Your task to perform on an android device: set the timer Image 0: 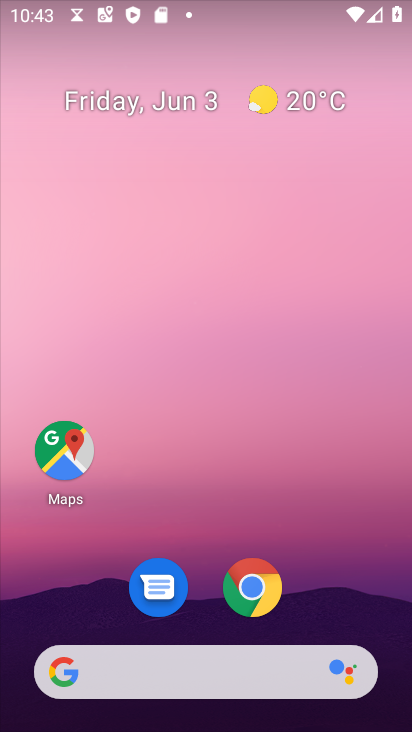
Step 0: drag from (380, 576) to (126, 56)
Your task to perform on an android device: set the timer Image 1: 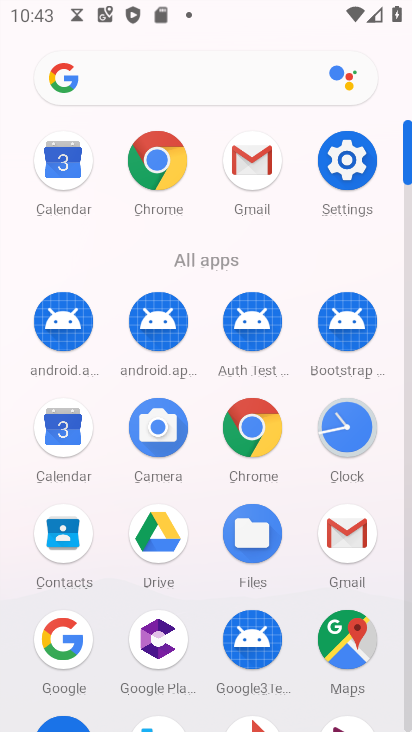
Step 1: click (350, 435)
Your task to perform on an android device: set the timer Image 2: 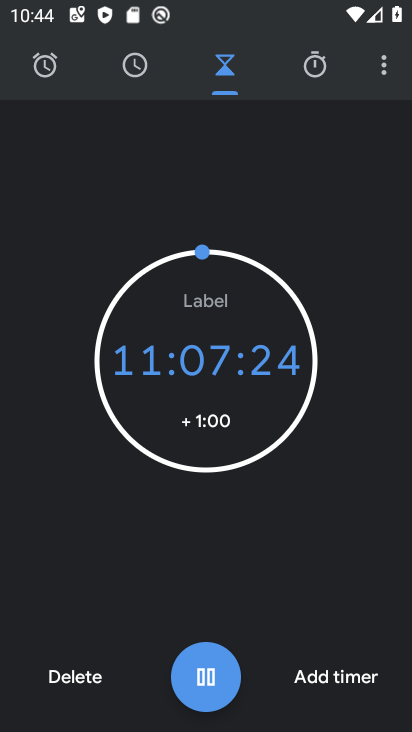
Step 2: click (81, 673)
Your task to perform on an android device: set the timer Image 3: 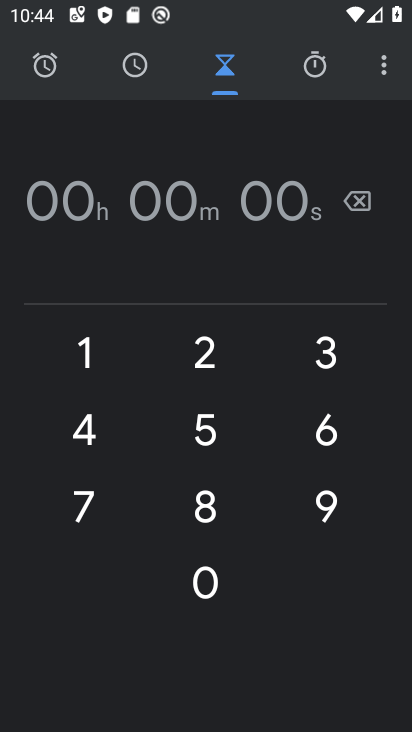
Step 3: click (109, 346)
Your task to perform on an android device: set the timer Image 4: 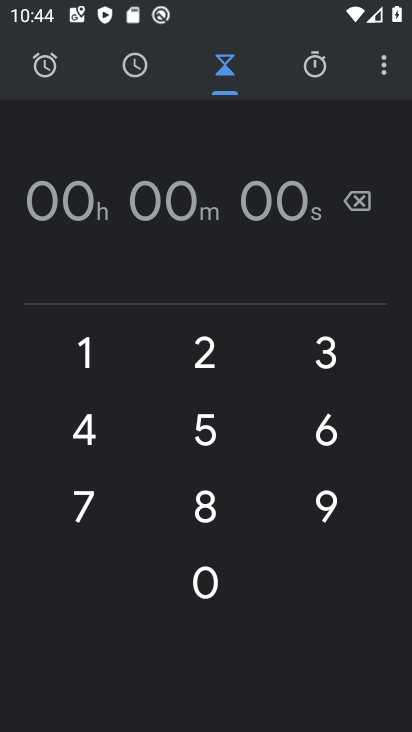
Step 4: click (109, 346)
Your task to perform on an android device: set the timer Image 5: 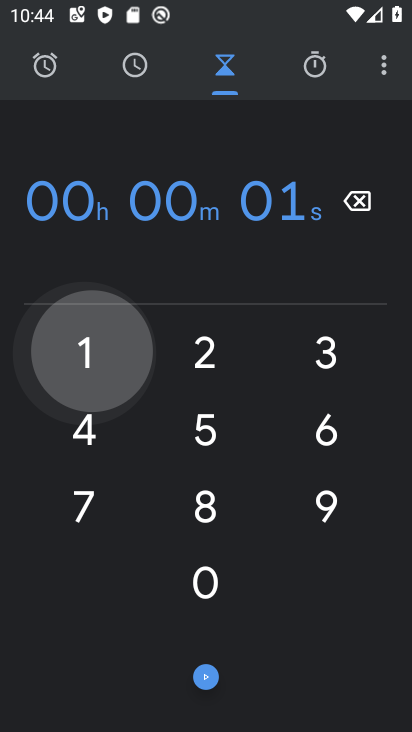
Step 5: click (106, 347)
Your task to perform on an android device: set the timer Image 6: 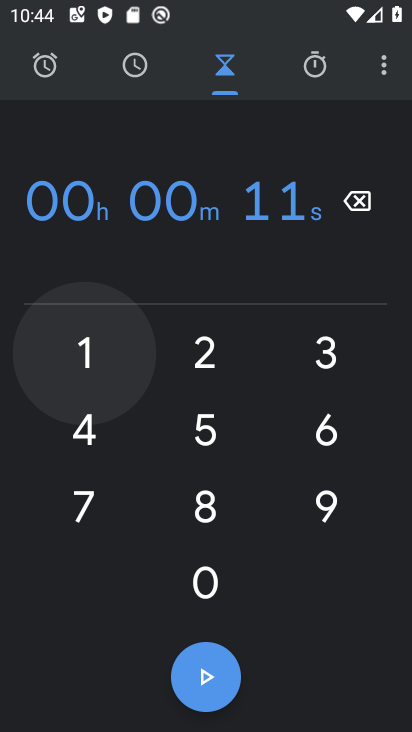
Step 6: click (106, 348)
Your task to perform on an android device: set the timer Image 7: 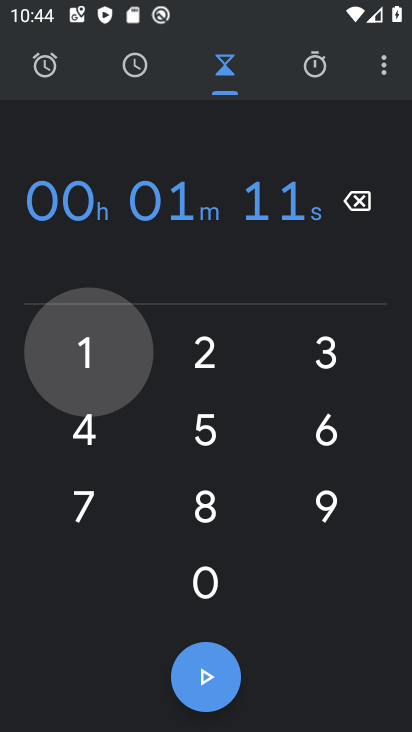
Step 7: click (106, 348)
Your task to perform on an android device: set the timer Image 8: 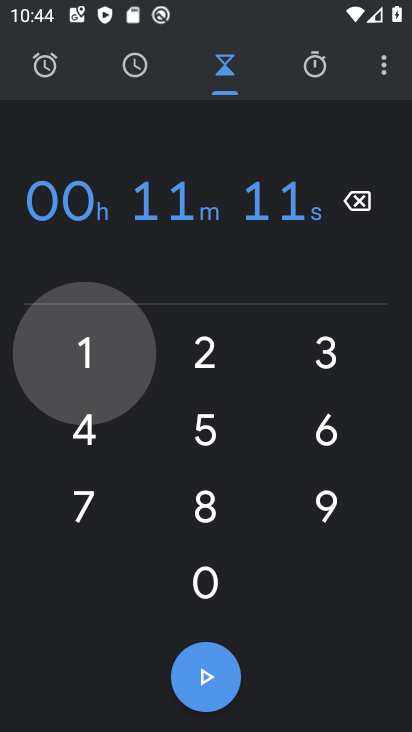
Step 8: click (105, 350)
Your task to perform on an android device: set the timer Image 9: 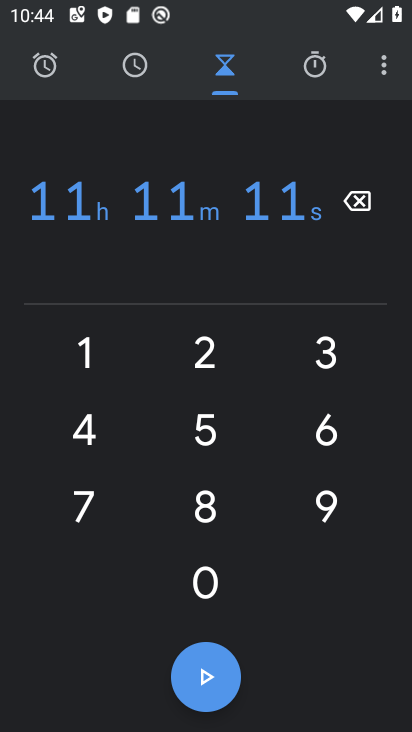
Step 9: click (211, 662)
Your task to perform on an android device: set the timer Image 10: 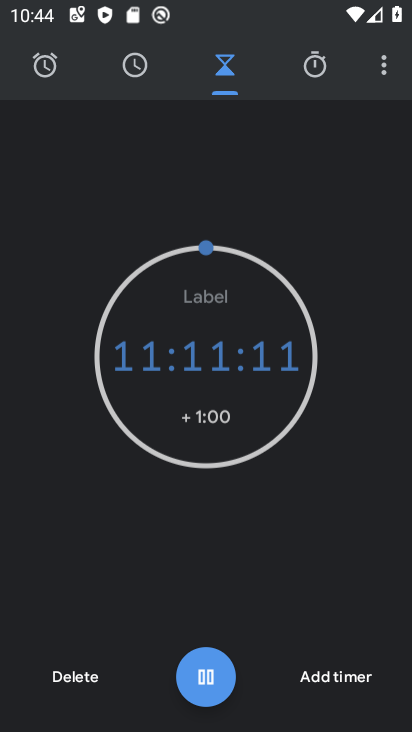
Step 10: task complete